Your task to perform on an android device: Open calendar and show me the third week of next month Image 0: 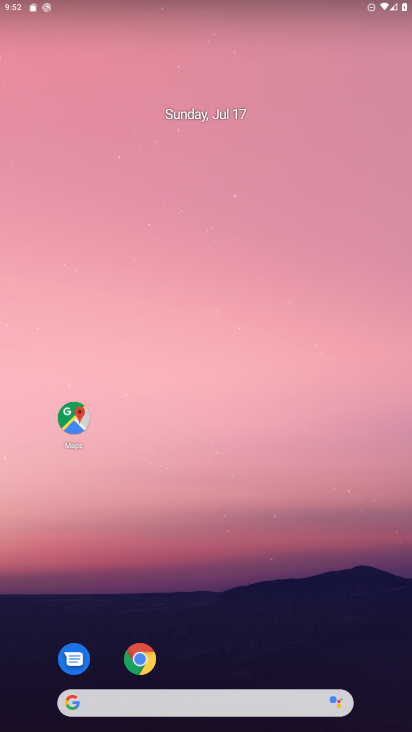
Step 0: drag from (280, 664) to (345, 0)
Your task to perform on an android device: Open calendar and show me the third week of next month Image 1: 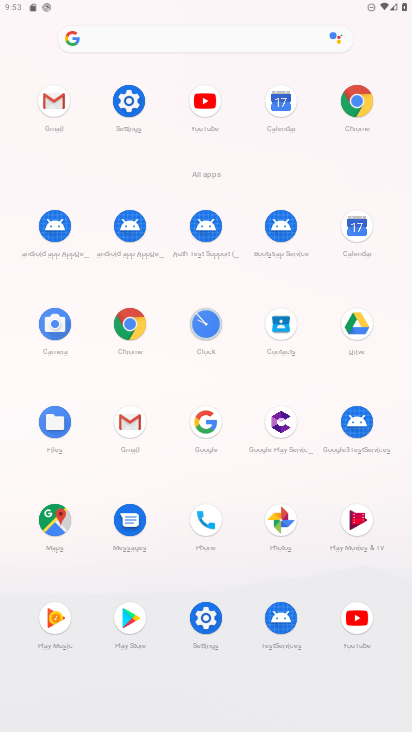
Step 1: click (362, 242)
Your task to perform on an android device: Open calendar and show me the third week of next month Image 2: 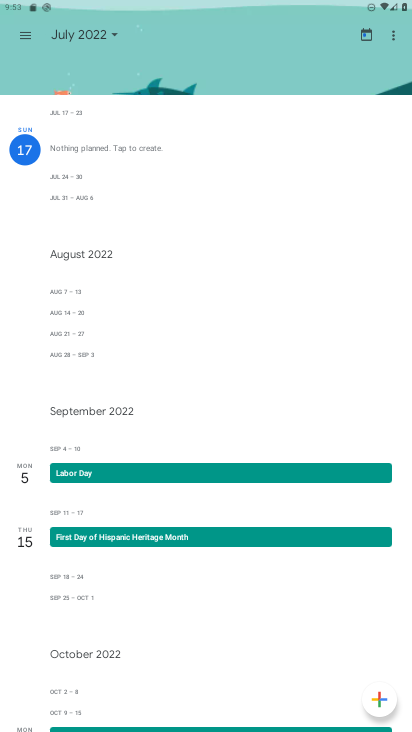
Step 2: click (86, 31)
Your task to perform on an android device: Open calendar and show me the third week of next month Image 3: 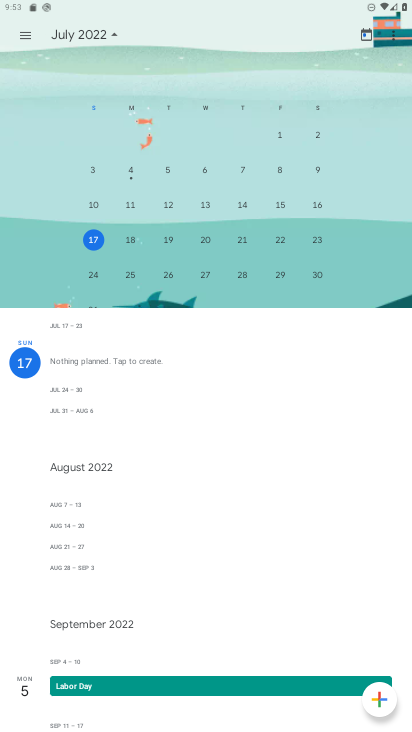
Step 3: drag from (406, 196) to (8, 139)
Your task to perform on an android device: Open calendar and show me the third week of next month Image 4: 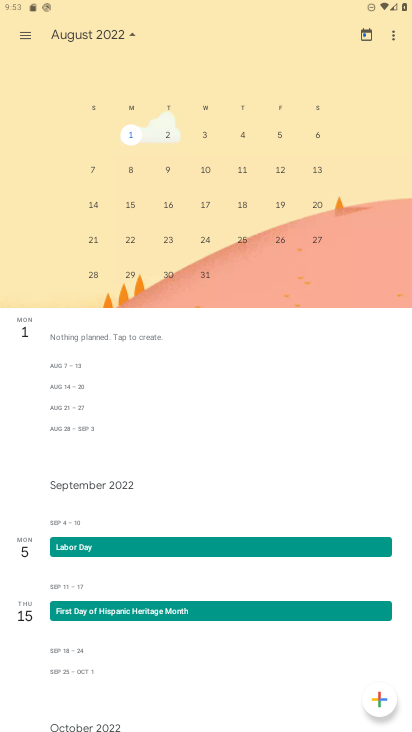
Step 4: click (94, 206)
Your task to perform on an android device: Open calendar and show me the third week of next month Image 5: 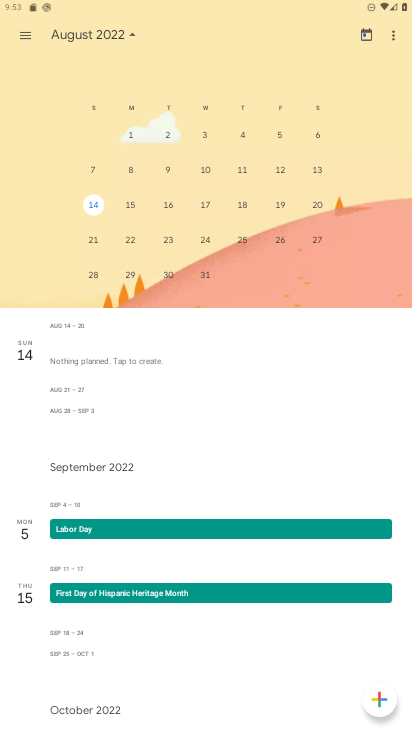
Step 5: task complete